Your task to perform on an android device: move a message to another label in the gmail app Image 0: 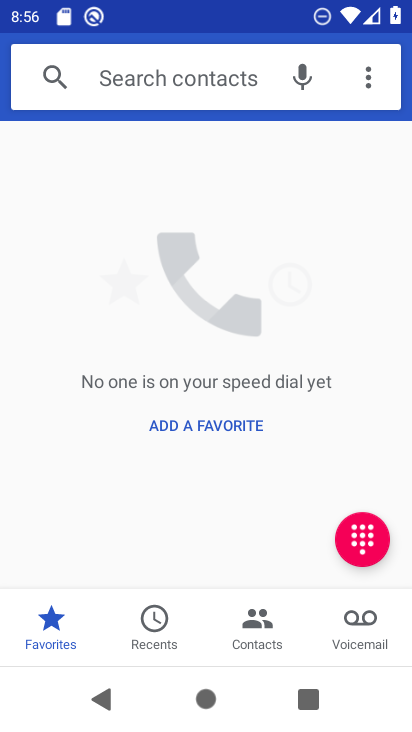
Step 0: press home button
Your task to perform on an android device: move a message to another label in the gmail app Image 1: 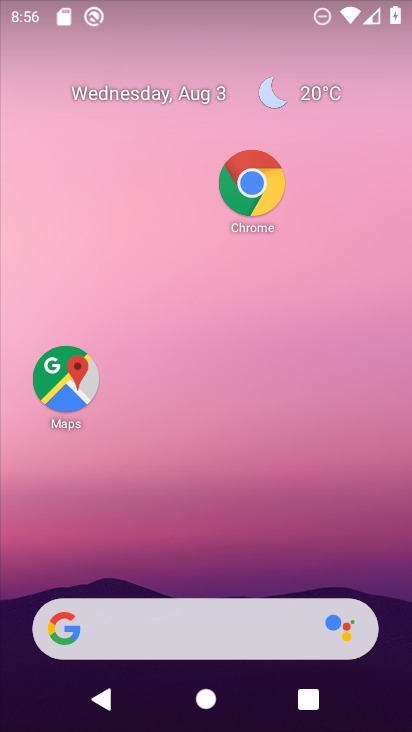
Step 1: drag from (195, 468) to (213, 124)
Your task to perform on an android device: move a message to another label in the gmail app Image 2: 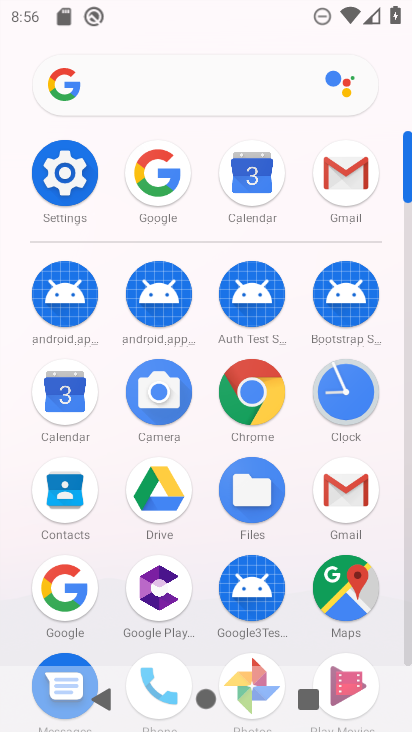
Step 2: click (337, 182)
Your task to perform on an android device: move a message to another label in the gmail app Image 3: 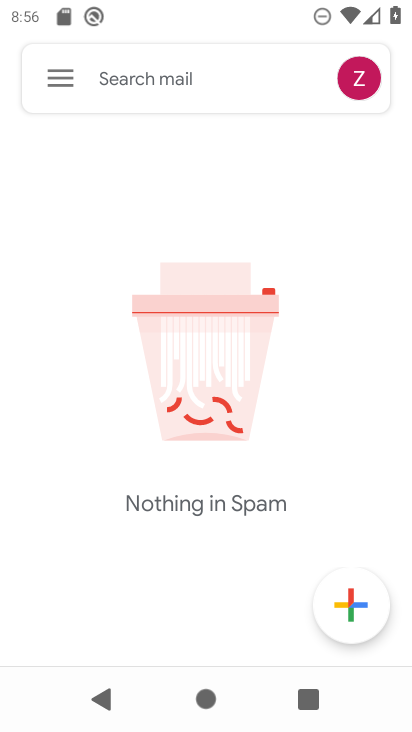
Step 3: click (63, 83)
Your task to perform on an android device: move a message to another label in the gmail app Image 4: 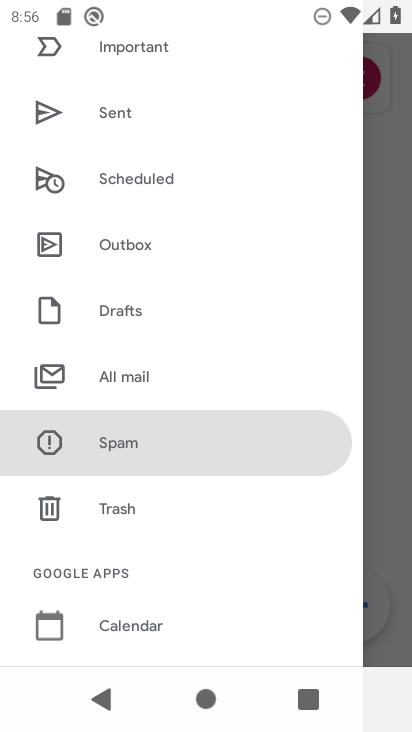
Step 4: click (124, 378)
Your task to perform on an android device: move a message to another label in the gmail app Image 5: 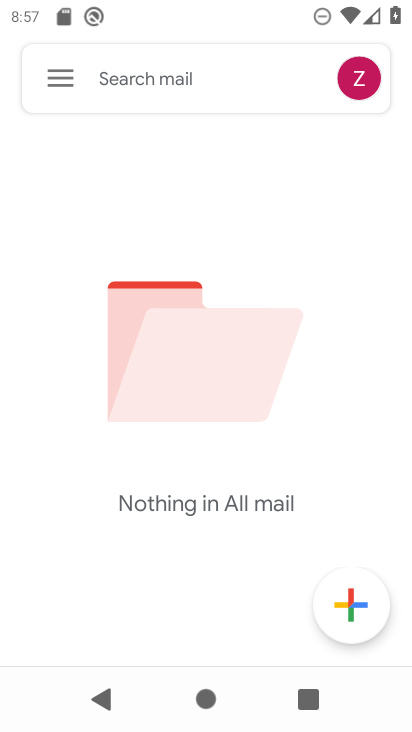
Step 5: task complete